Your task to perform on an android device: Search for Mexican restaurants on Maps Image 0: 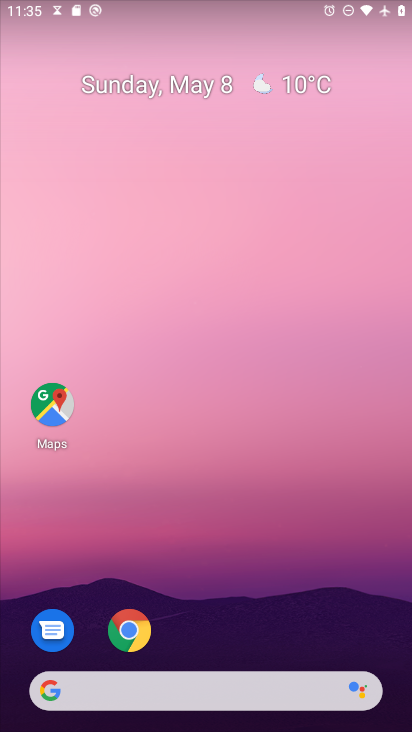
Step 0: drag from (131, 687) to (295, 182)
Your task to perform on an android device: Search for Mexican restaurants on Maps Image 1: 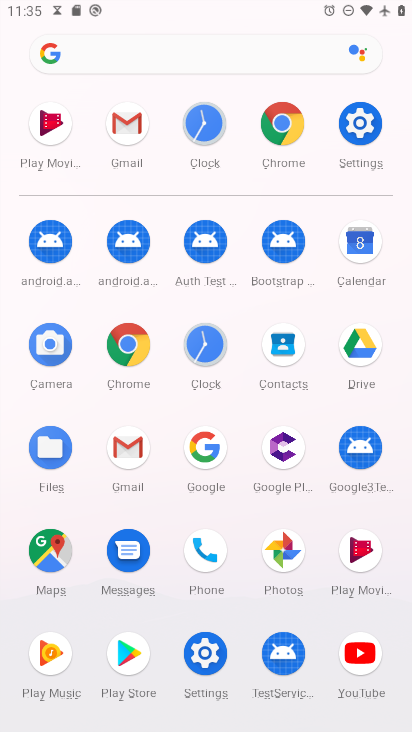
Step 1: click (50, 563)
Your task to perform on an android device: Search for Mexican restaurants on Maps Image 2: 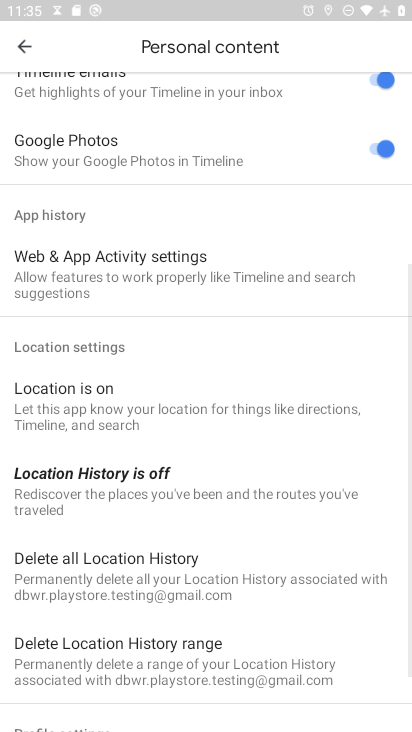
Step 2: click (22, 44)
Your task to perform on an android device: Search for Mexican restaurants on Maps Image 3: 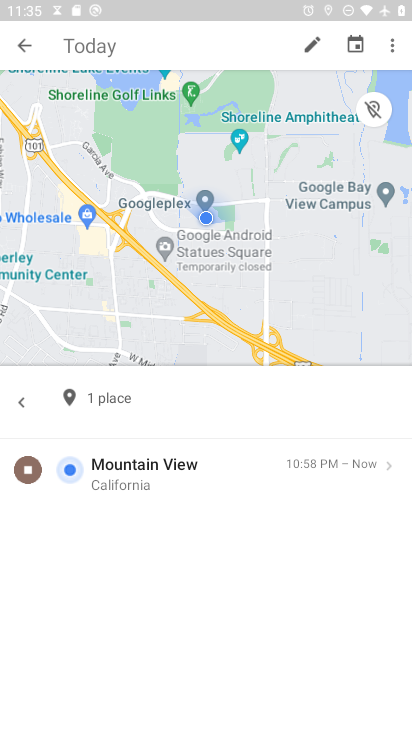
Step 3: click (22, 44)
Your task to perform on an android device: Search for Mexican restaurants on Maps Image 4: 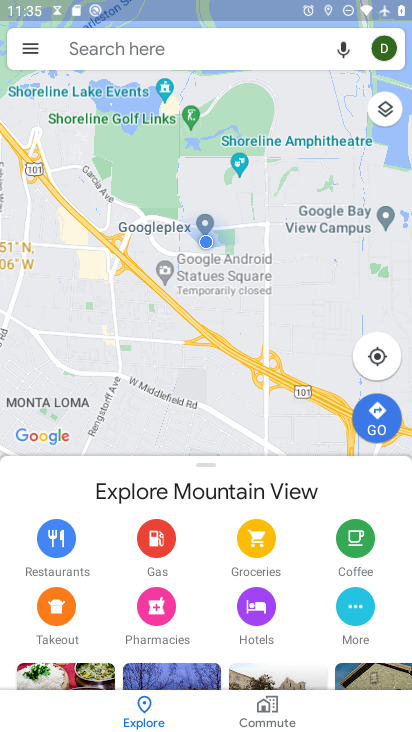
Step 4: click (143, 51)
Your task to perform on an android device: Search for Mexican restaurants on Maps Image 5: 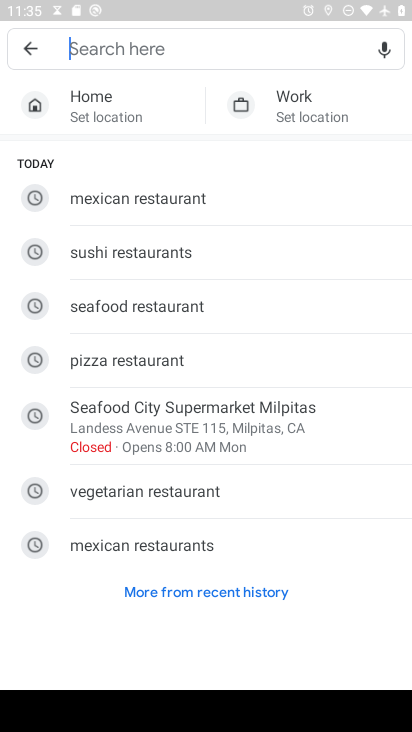
Step 5: click (108, 201)
Your task to perform on an android device: Search for Mexican restaurants on Maps Image 6: 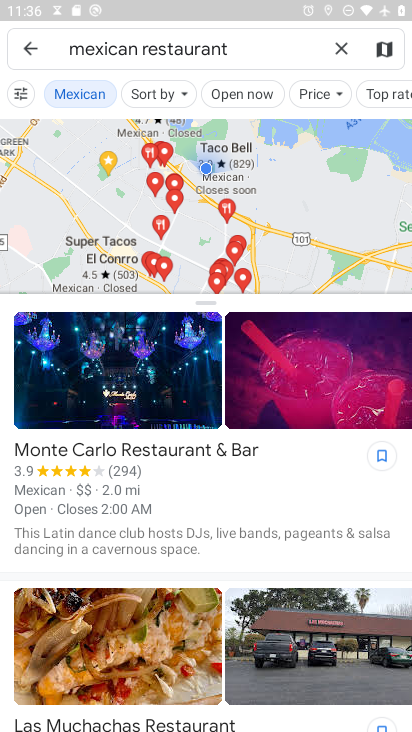
Step 6: task complete